Your task to perform on an android device: Search for vegetarian restaurants on Maps Image 0: 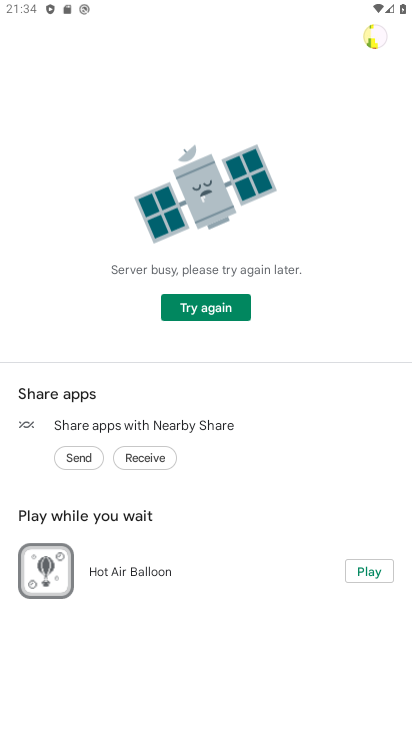
Step 0: press home button
Your task to perform on an android device: Search for vegetarian restaurants on Maps Image 1: 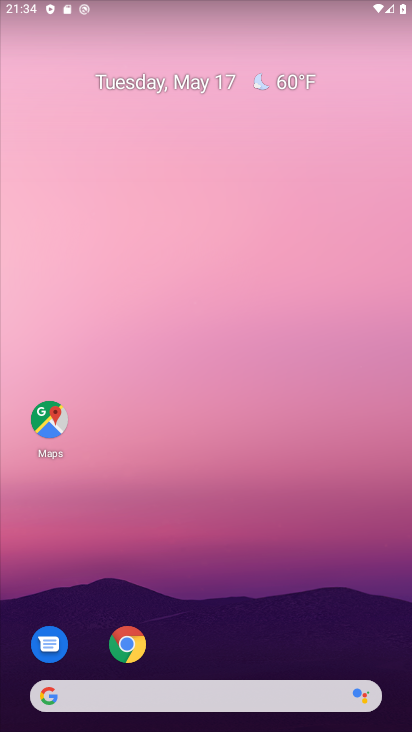
Step 1: click (44, 420)
Your task to perform on an android device: Search for vegetarian restaurants on Maps Image 2: 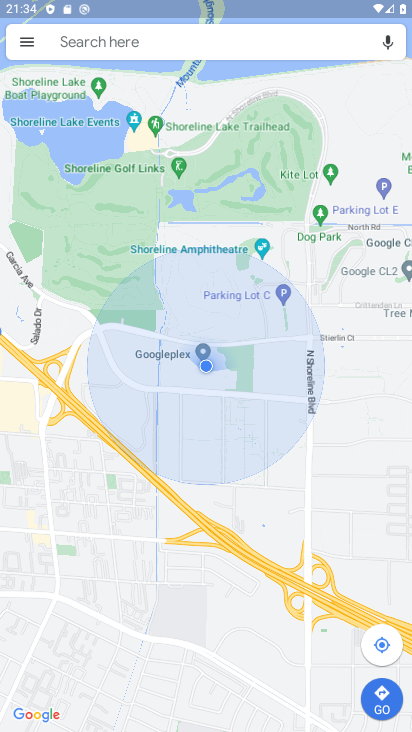
Step 2: click (77, 36)
Your task to perform on an android device: Search for vegetarian restaurants on Maps Image 3: 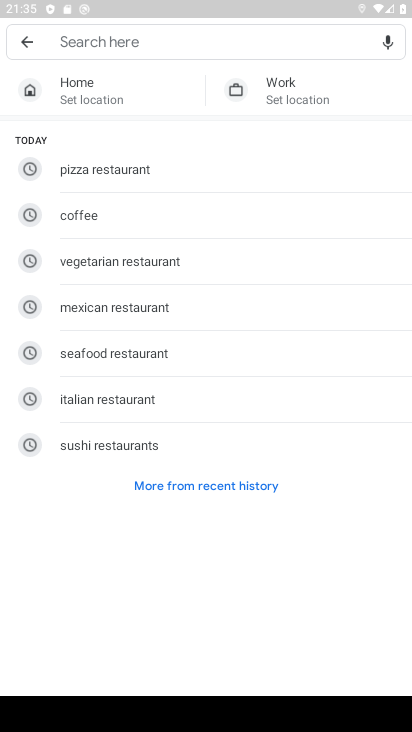
Step 3: type "vegetarian restaurants"
Your task to perform on an android device: Search for vegetarian restaurants on Maps Image 4: 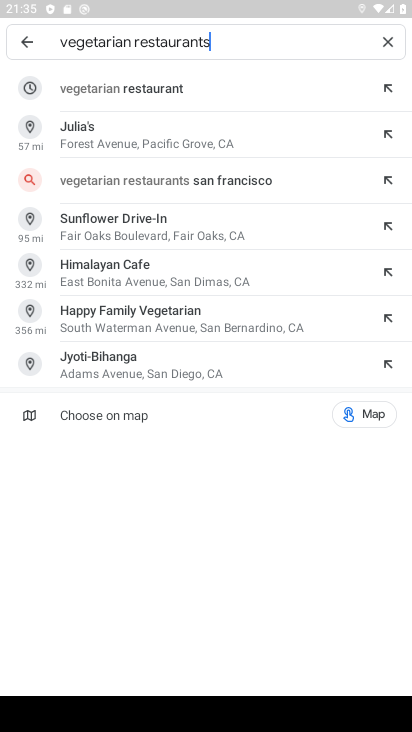
Step 4: click (122, 95)
Your task to perform on an android device: Search for vegetarian restaurants on Maps Image 5: 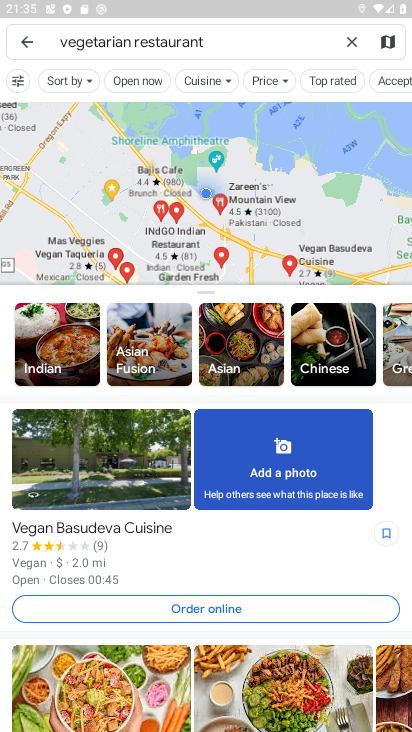
Step 5: task complete